Your task to perform on an android device: uninstall "Cash App" Image 0: 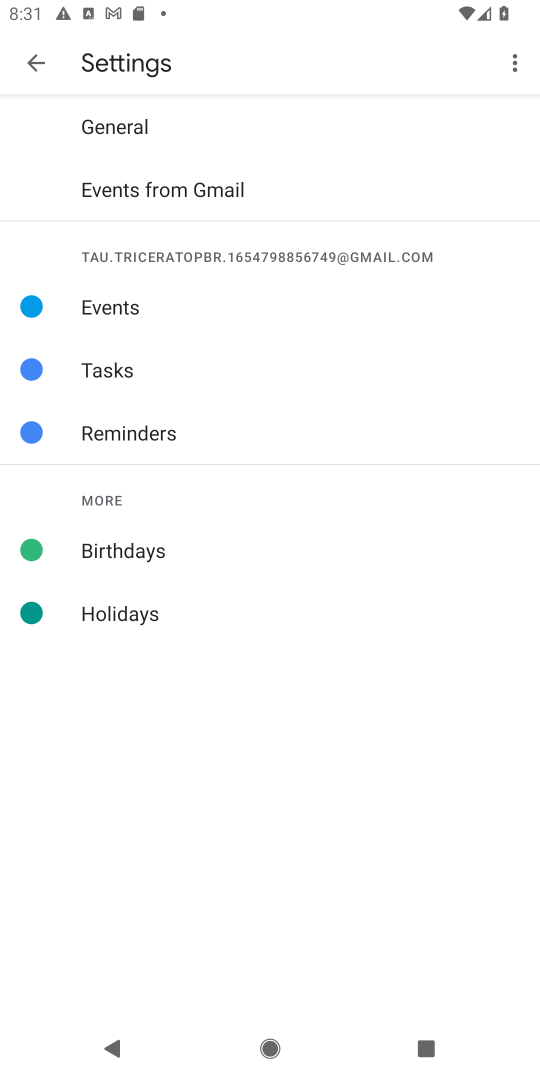
Step 0: press home button
Your task to perform on an android device: uninstall "Cash App" Image 1: 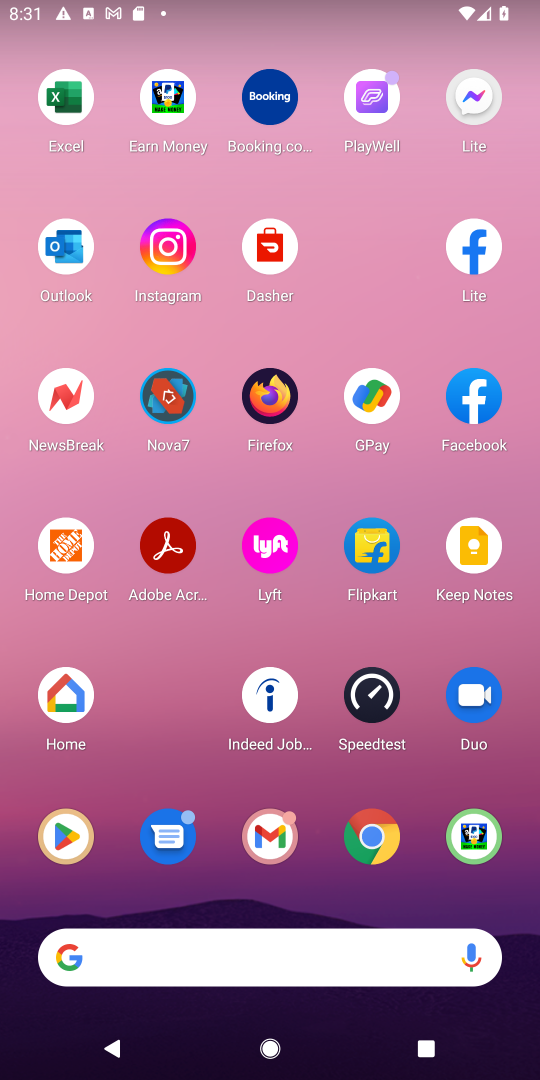
Step 1: press home button
Your task to perform on an android device: uninstall "Cash App" Image 2: 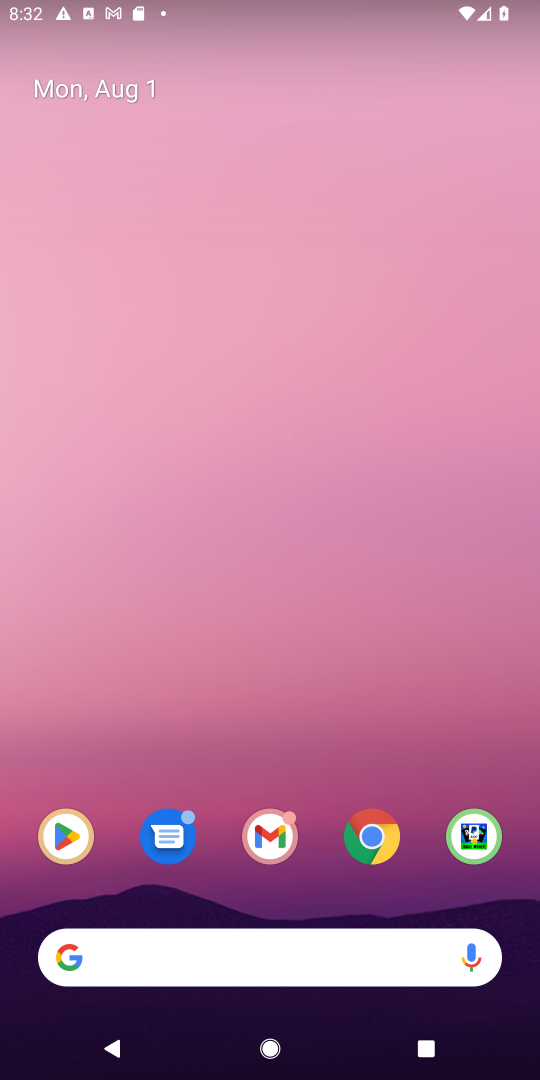
Step 2: click (56, 830)
Your task to perform on an android device: uninstall "Cash App" Image 3: 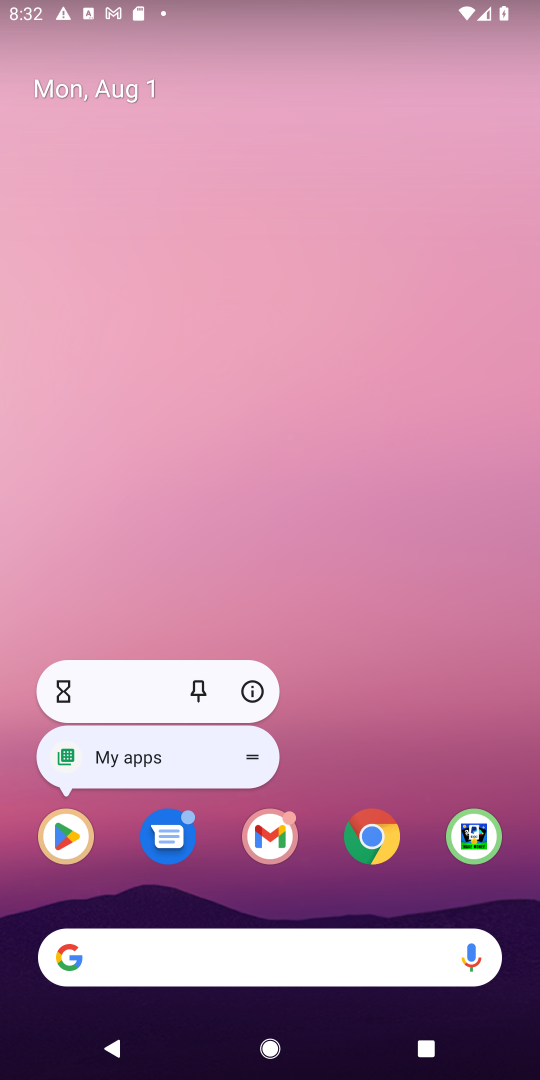
Step 3: click (58, 836)
Your task to perform on an android device: uninstall "Cash App" Image 4: 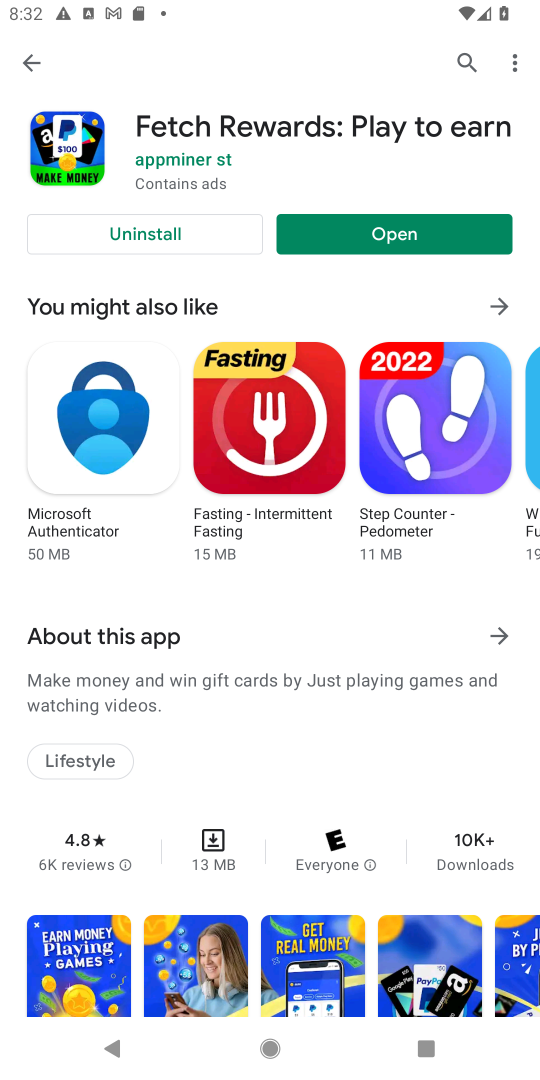
Step 4: click (462, 49)
Your task to perform on an android device: uninstall "Cash App" Image 5: 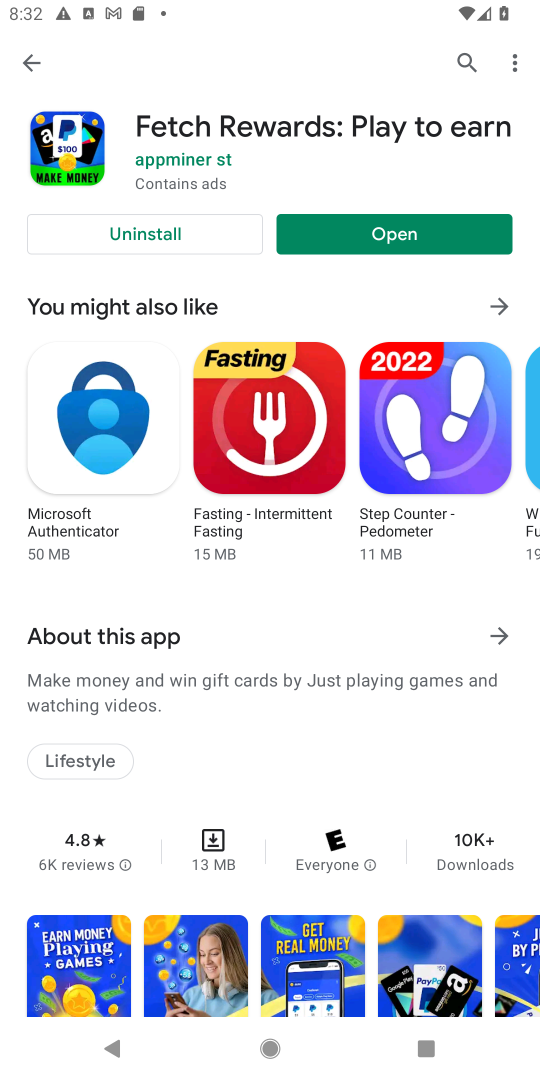
Step 5: click (461, 52)
Your task to perform on an android device: uninstall "Cash App" Image 6: 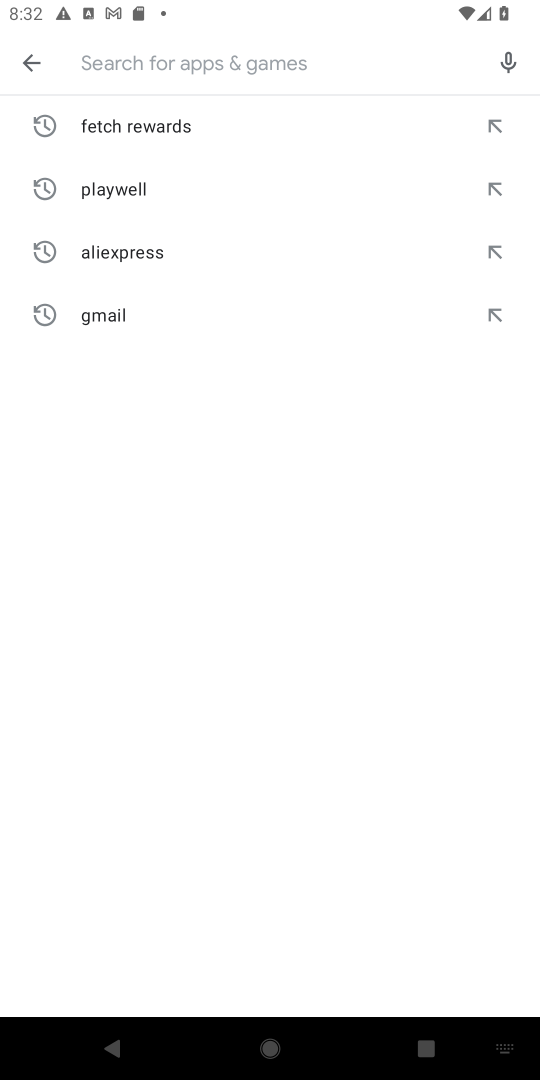
Step 6: type "Cash App"
Your task to perform on an android device: uninstall "Cash App" Image 7: 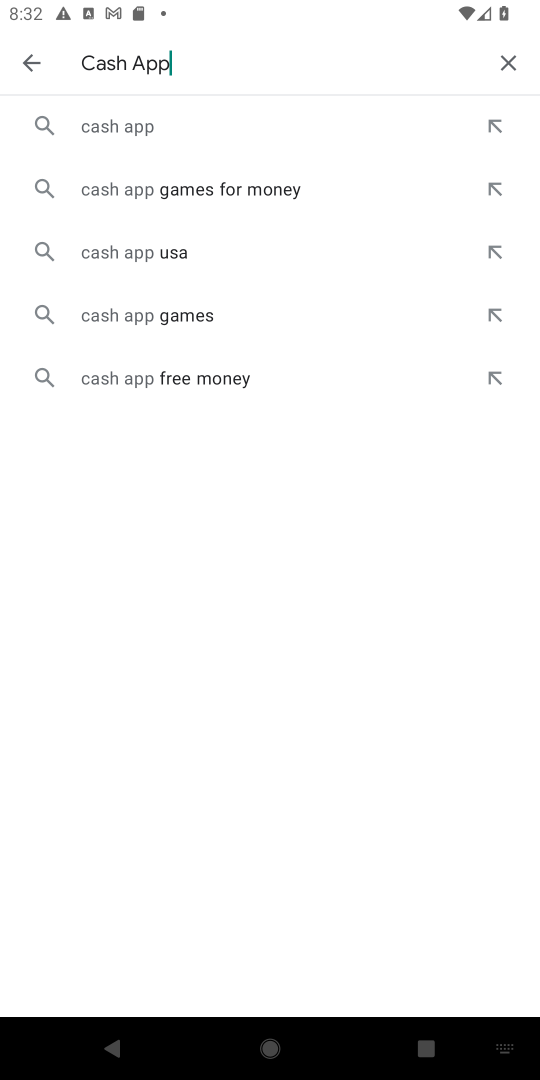
Step 7: click (126, 128)
Your task to perform on an android device: uninstall "Cash App" Image 8: 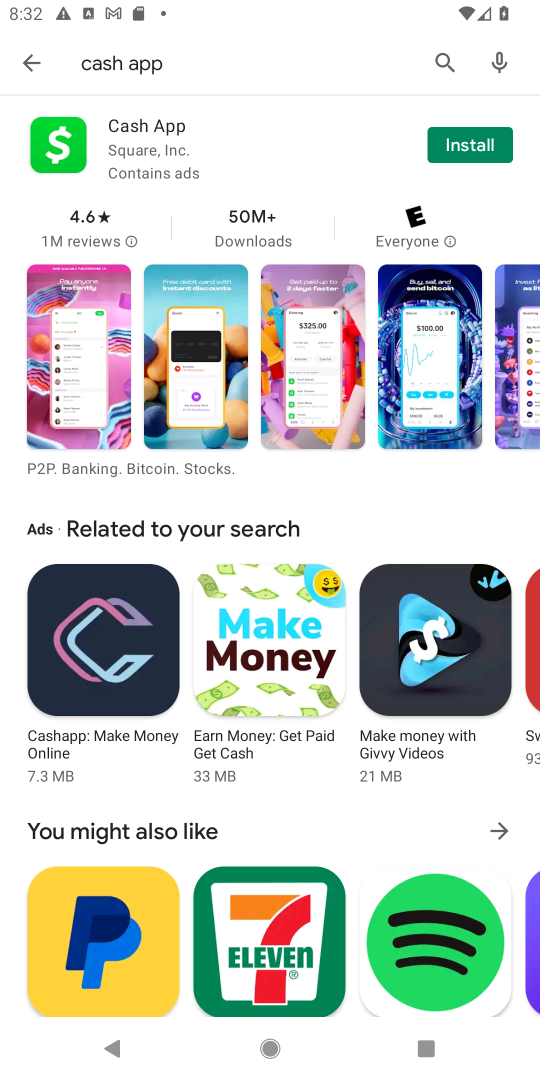
Step 8: task complete